Your task to perform on an android device: Open calendar and show me the third week of next month Image 0: 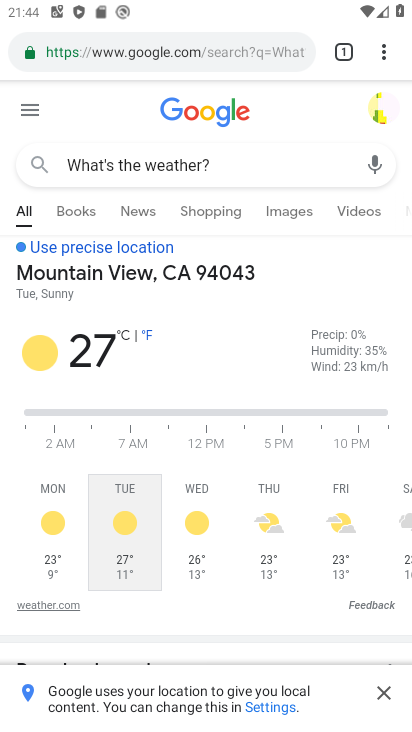
Step 0: press home button
Your task to perform on an android device: Open calendar and show me the third week of next month Image 1: 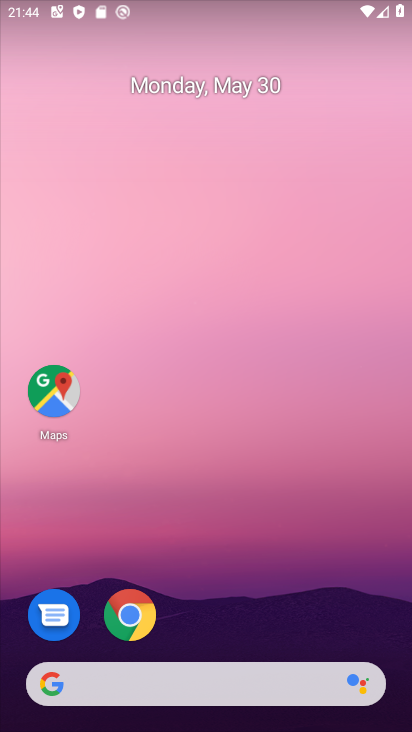
Step 1: drag from (214, 629) to (154, 181)
Your task to perform on an android device: Open calendar and show me the third week of next month Image 2: 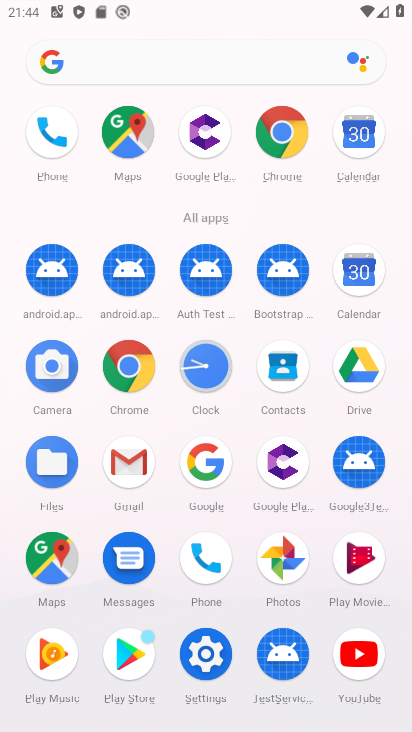
Step 2: click (362, 285)
Your task to perform on an android device: Open calendar and show me the third week of next month Image 3: 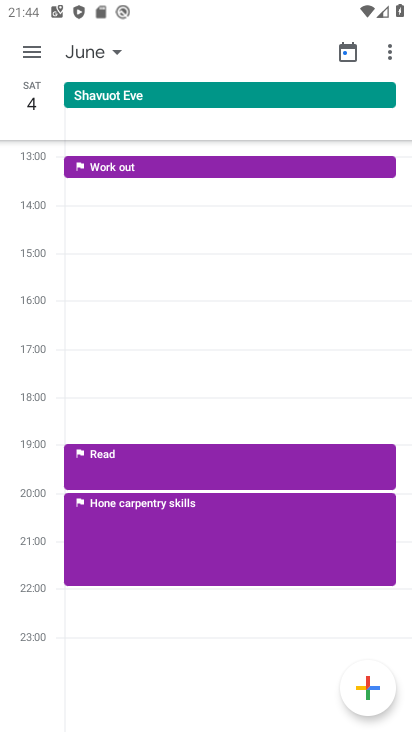
Step 3: click (32, 59)
Your task to perform on an android device: Open calendar and show me the third week of next month Image 4: 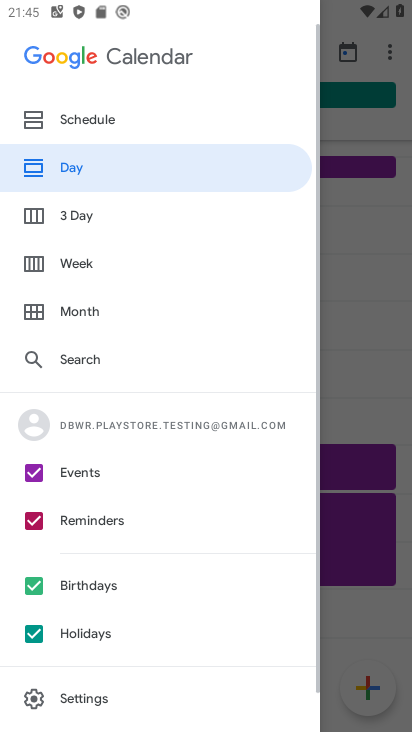
Step 4: click (102, 267)
Your task to perform on an android device: Open calendar and show me the third week of next month Image 5: 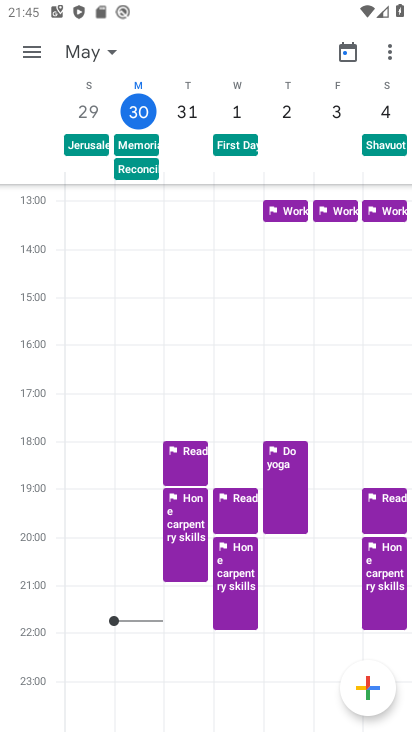
Step 5: click (110, 52)
Your task to perform on an android device: Open calendar and show me the third week of next month Image 6: 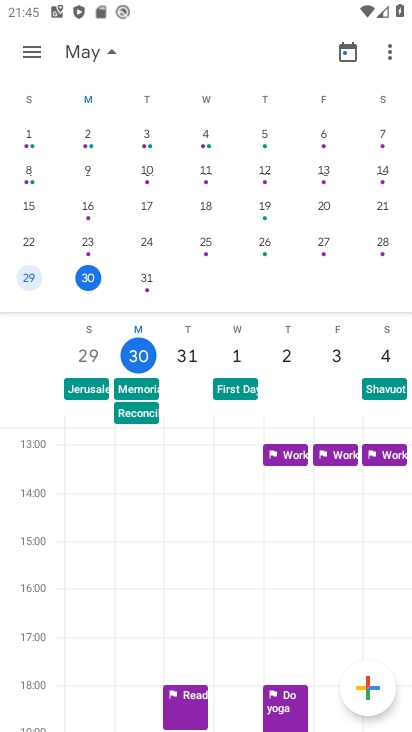
Step 6: drag from (378, 217) to (13, 195)
Your task to perform on an android device: Open calendar and show me the third week of next month Image 7: 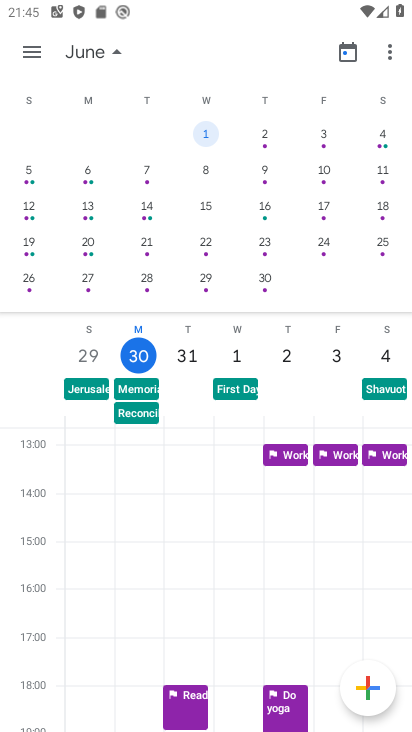
Step 7: click (206, 208)
Your task to perform on an android device: Open calendar and show me the third week of next month Image 8: 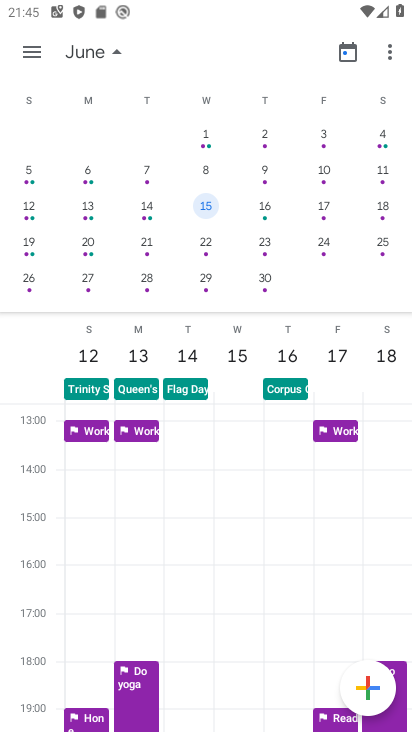
Step 8: task complete